Your task to perform on an android device: Set the phone to "Do not disturb". Image 0: 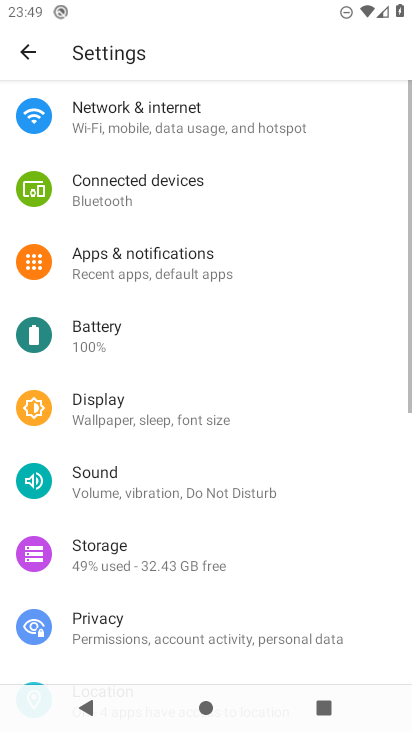
Step 0: drag from (198, 3) to (160, 505)
Your task to perform on an android device: Set the phone to "Do not disturb". Image 1: 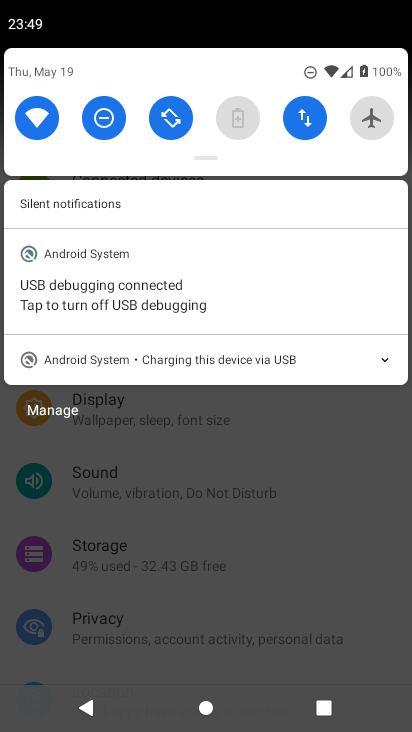
Step 1: task complete